Your task to perform on an android device: change notifications settings Image 0: 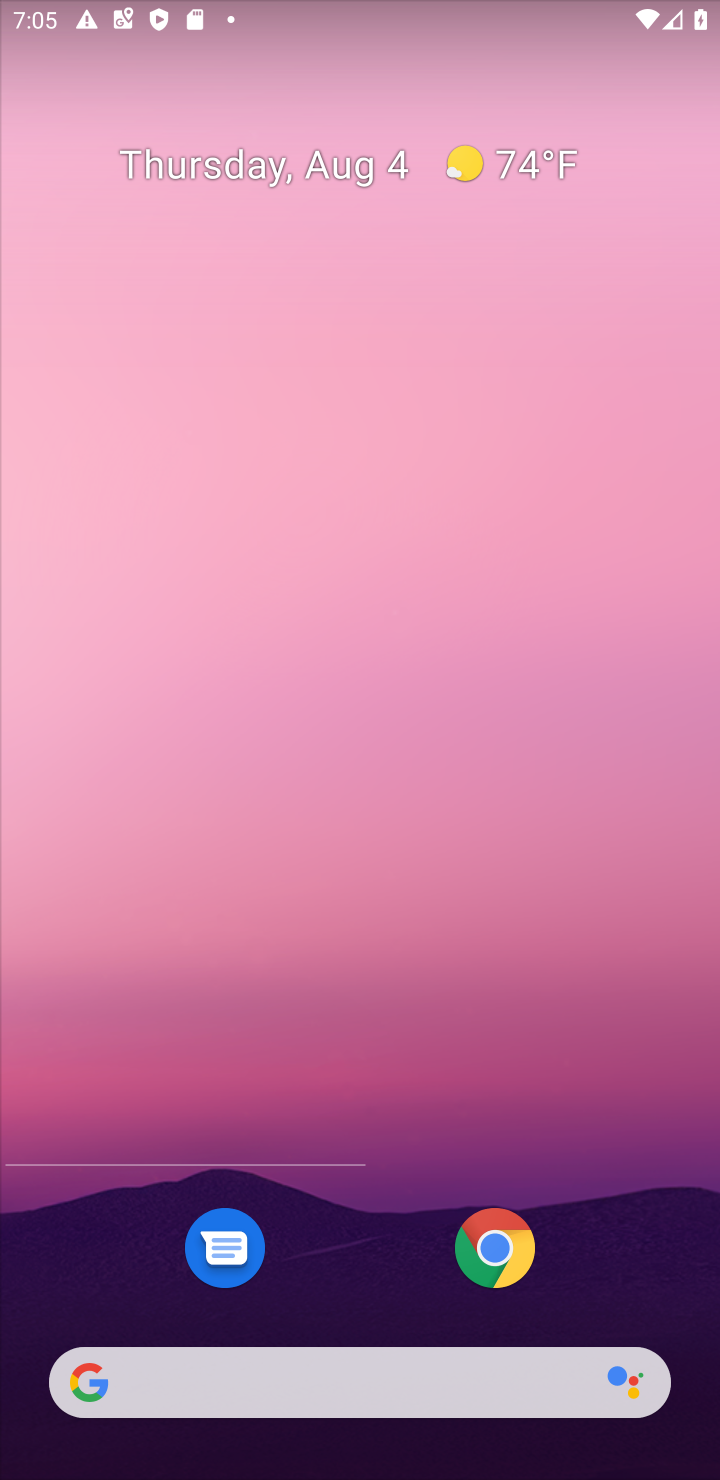
Step 0: press home button
Your task to perform on an android device: change notifications settings Image 1: 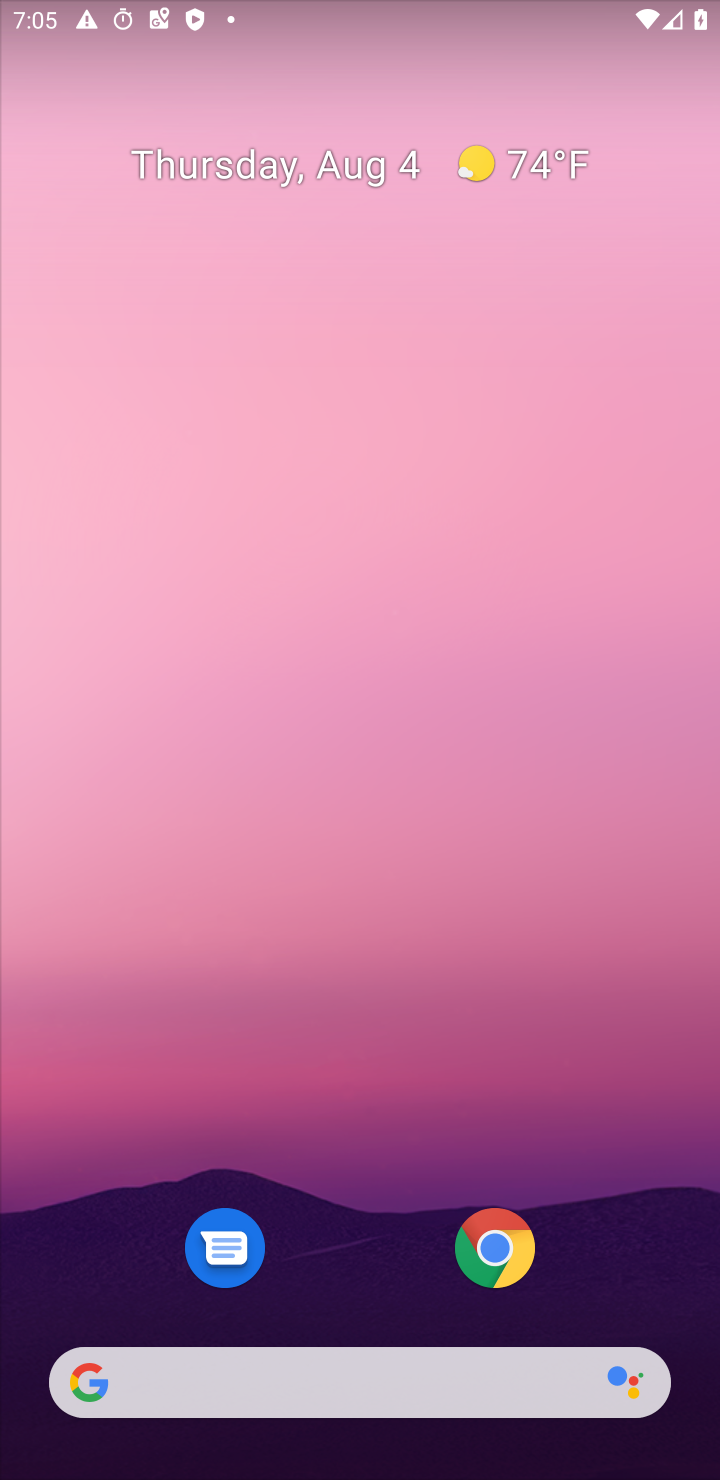
Step 1: drag from (434, 1283) to (337, 573)
Your task to perform on an android device: change notifications settings Image 2: 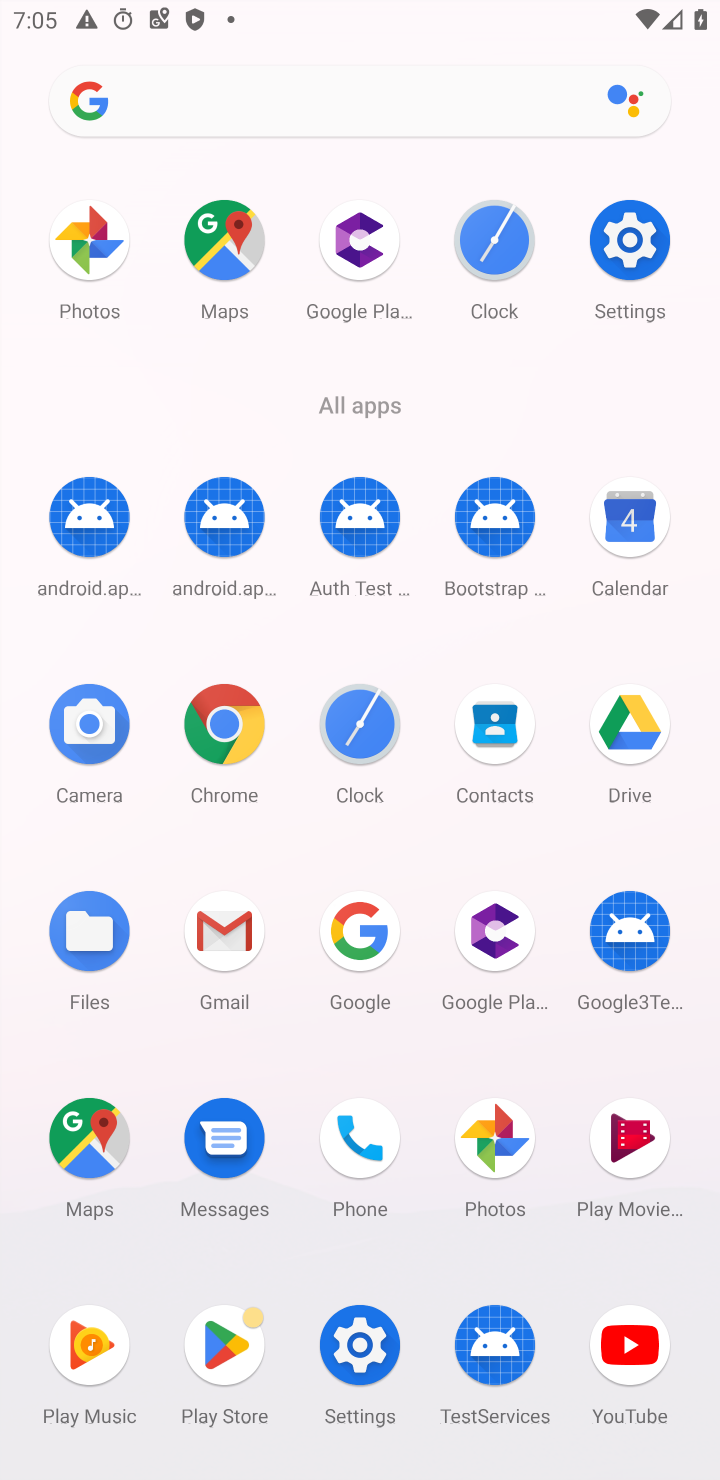
Step 2: click (615, 248)
Your task to perform on an android device: change notifications settings Image 3: 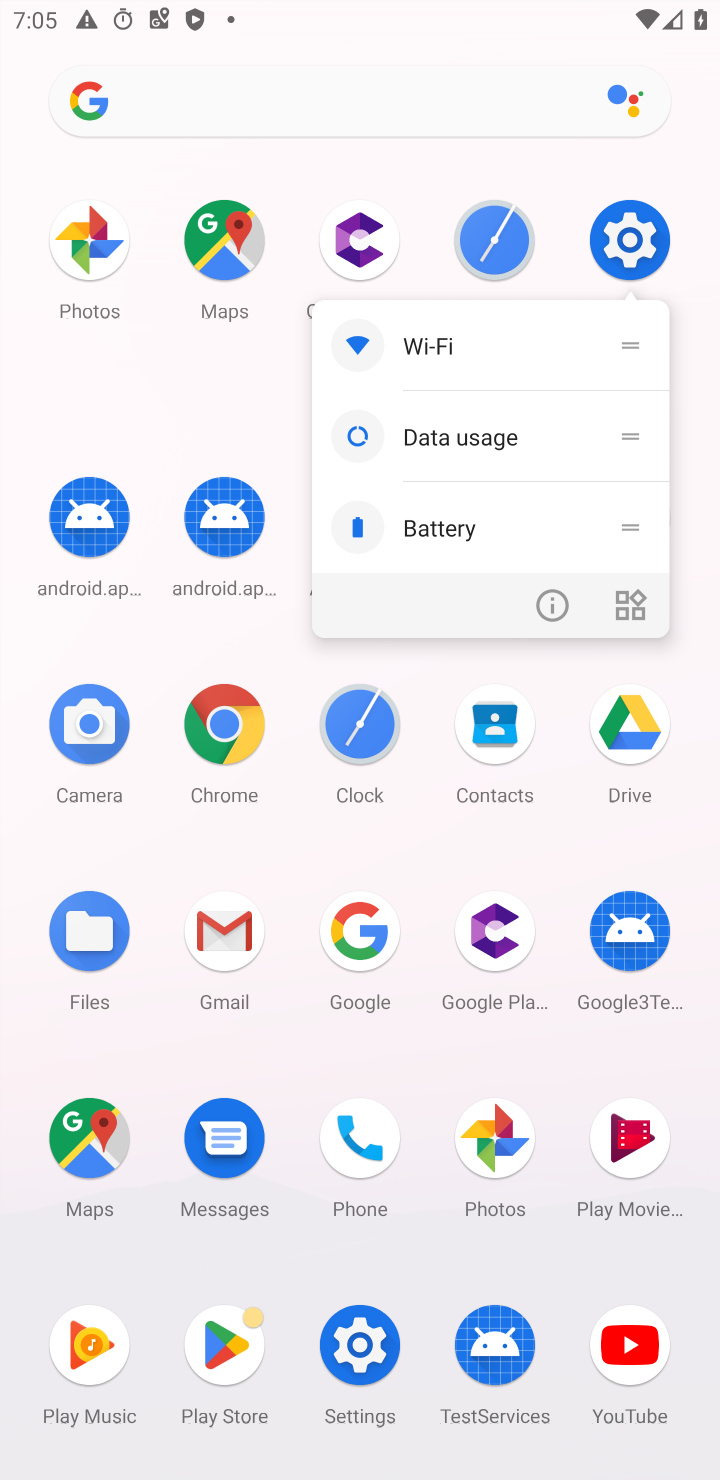
Step 3: click (612, 244)
Your task to perform on an android device: change notifications settings Image 4: 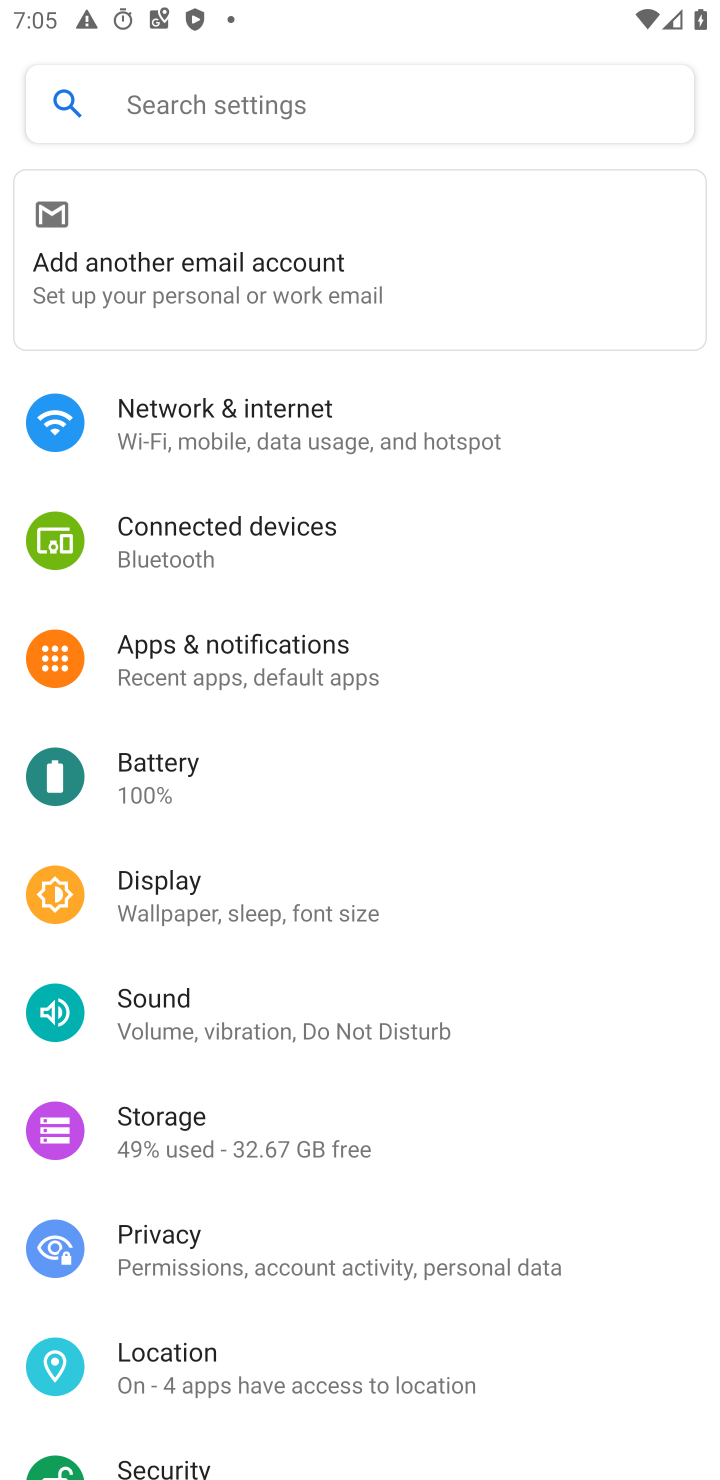
Step 4: click (163, 112)
Your task to perform on an android device: change notifications settings Image 5: 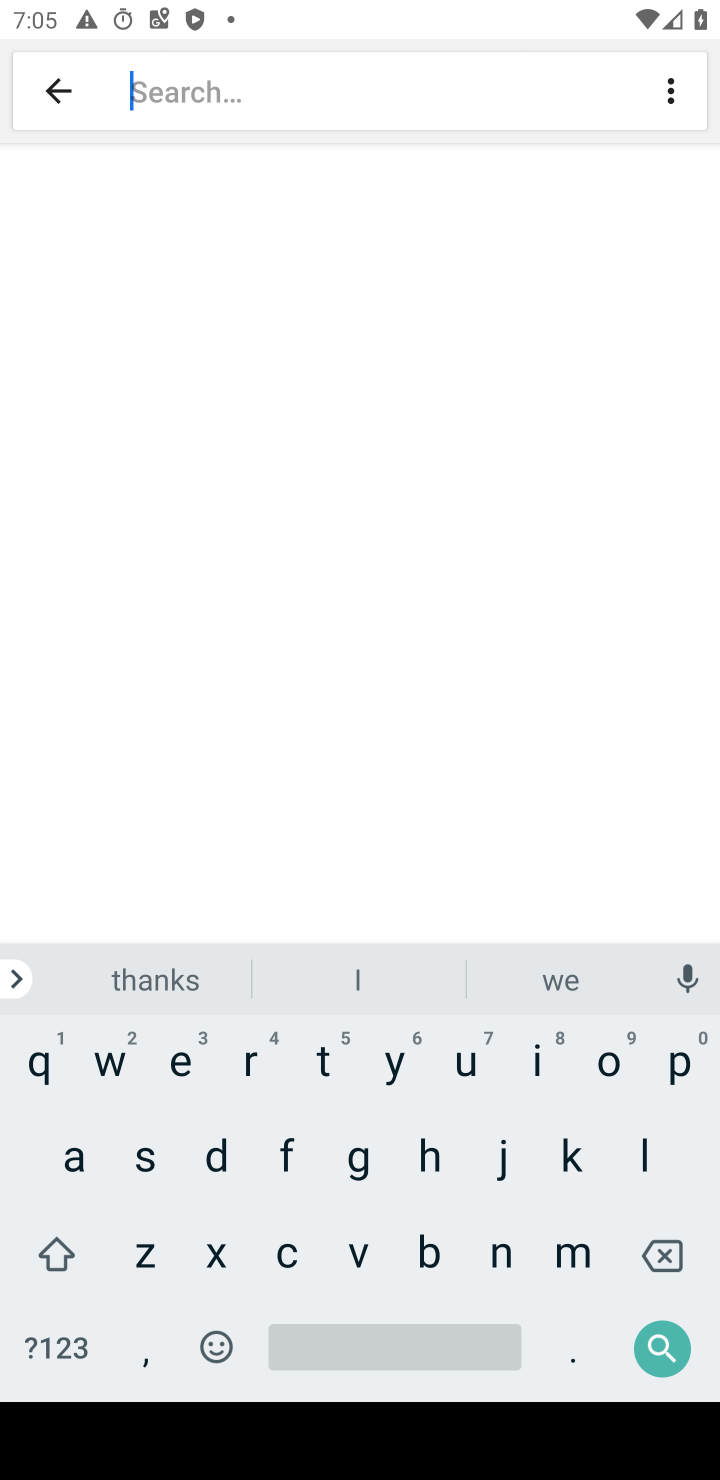
Step 5: click (494, 1254)
Your task to perform on an android device: change notifications settings Image 6: 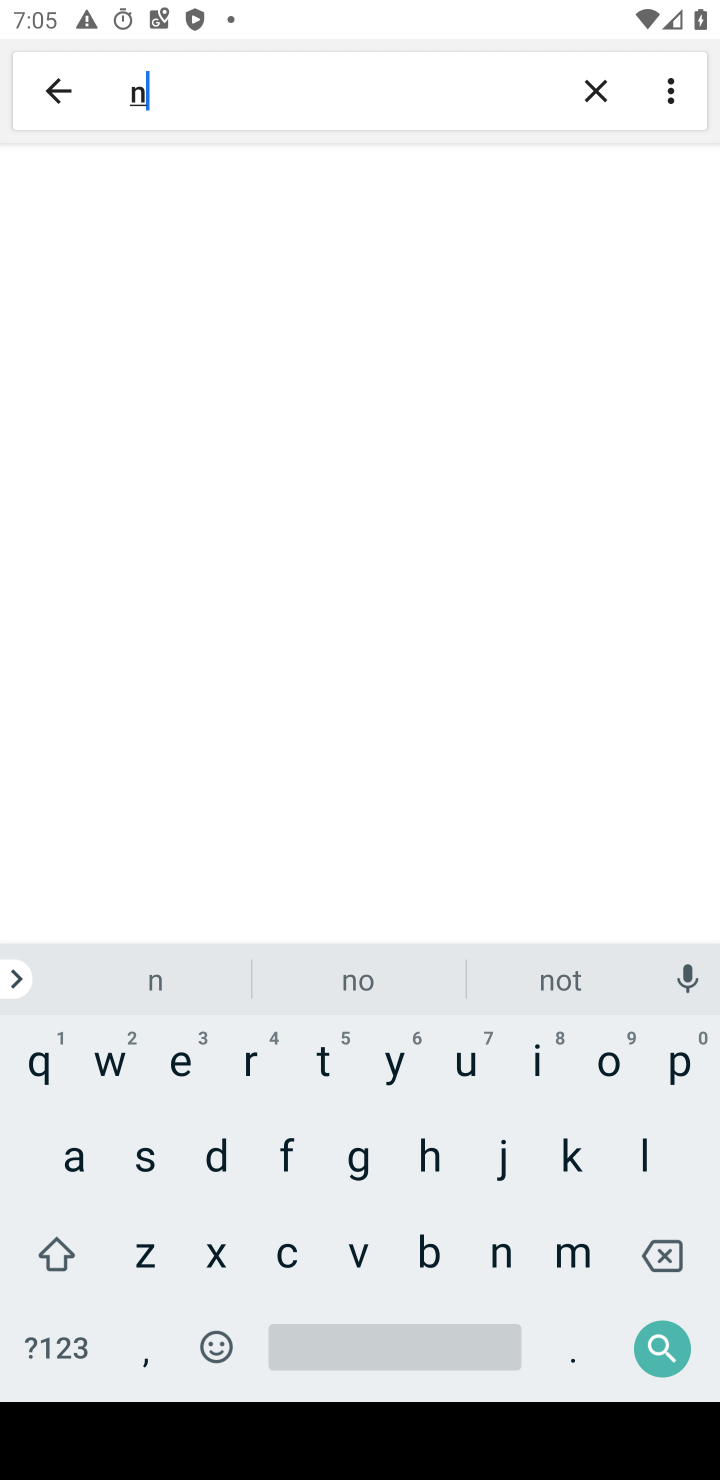
Step 6: click (627, 1074)
Your task to perform on an android device: change notifications settings Image 7: 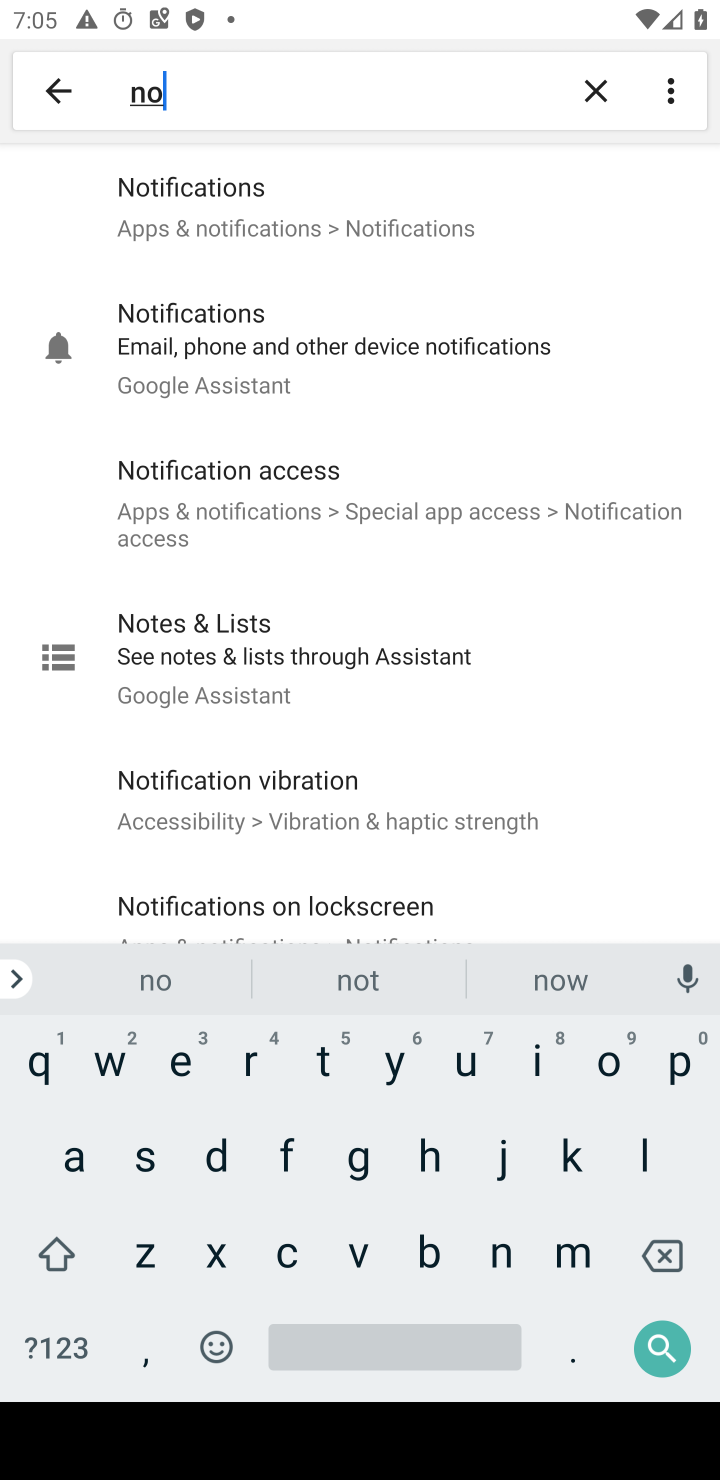
Step 7: click (228, 220)
Your task to perform on an android device: change notifications settings Image 8: 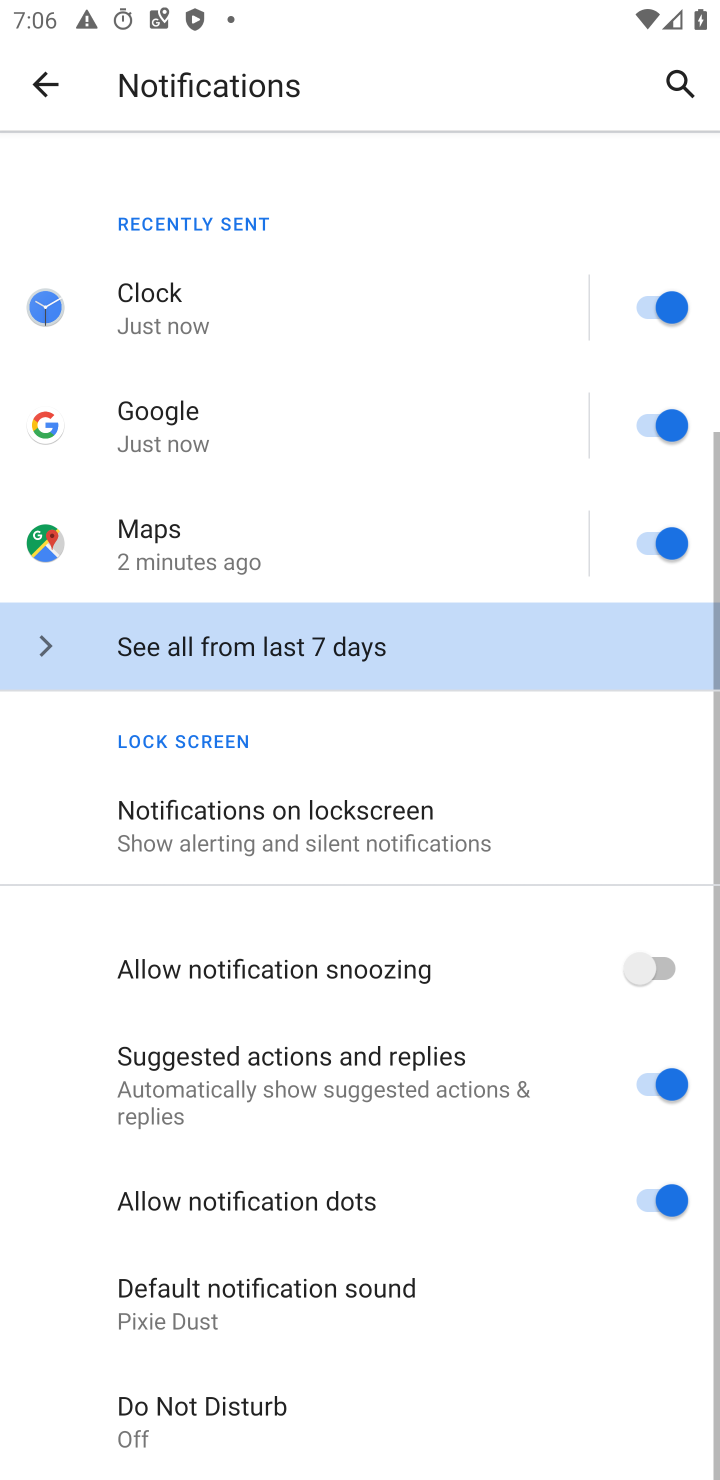
Step 8: click (314, 827)
Your task to perform on an android device: change notifications settings Image 9: 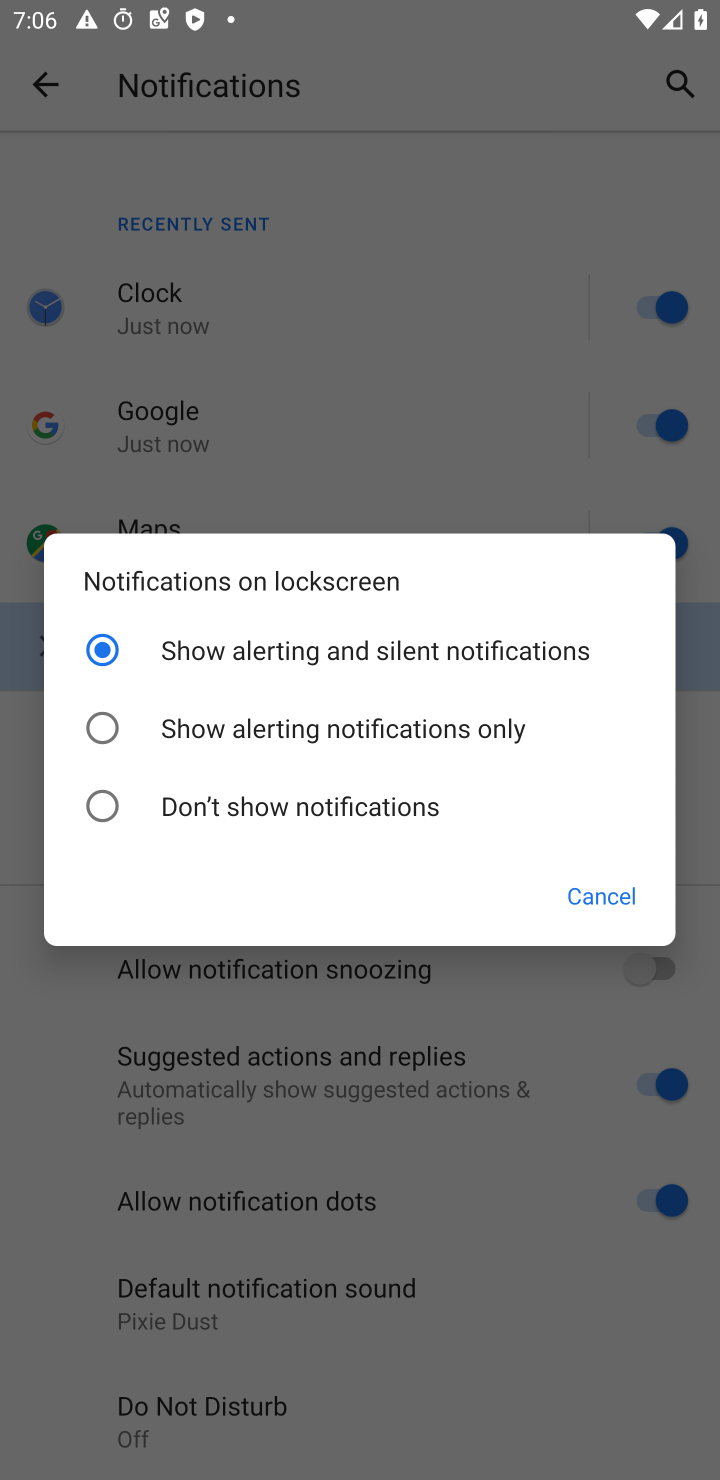
Step 9: task complete